Your task to perform on an android device: Open Chrome and go to settings Image 0: 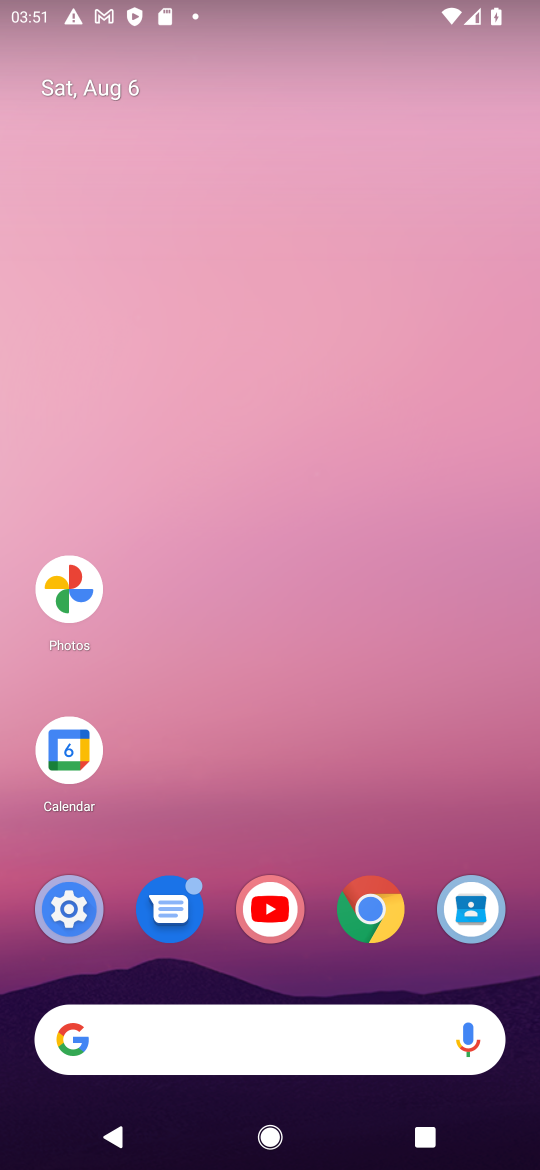
Step 0: click (366, 911)
Your task to perform on an android device: Open Chrome and go to settings Image 1: 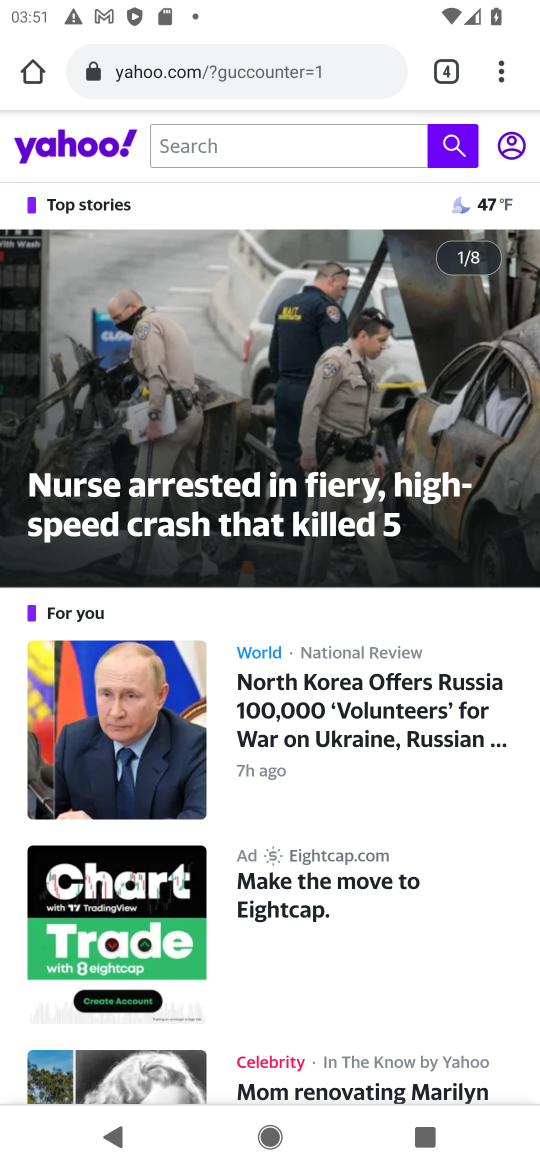
Step 1: click (504, 71)
Your task to perform on an android device: Open Chrome and go to settings Image 2: 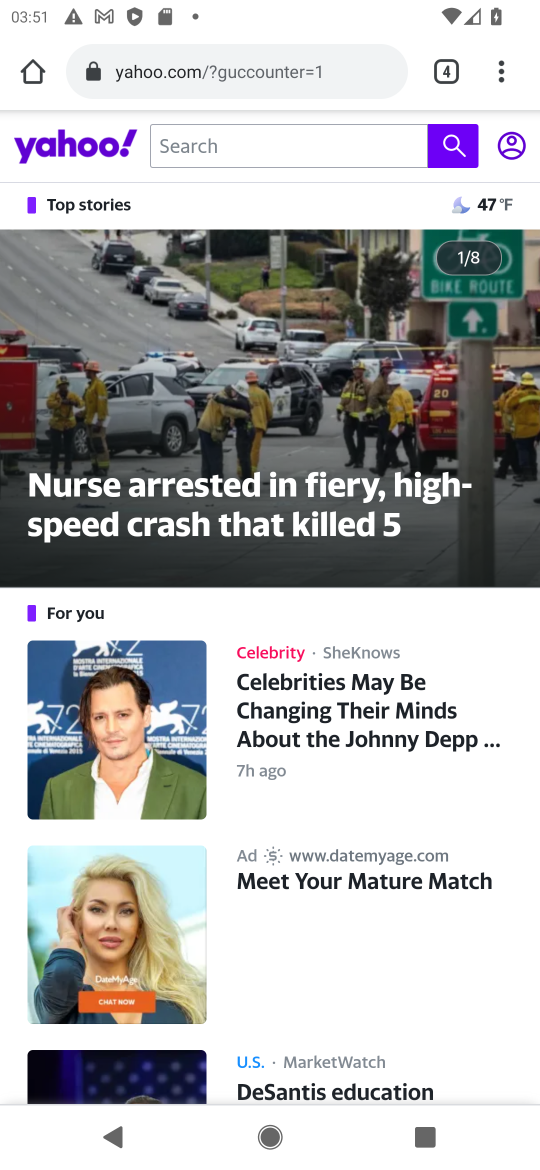
Step 2: click (502, 73)
Your task to perform on an android device: Open Chrome and go to settings Image 3: 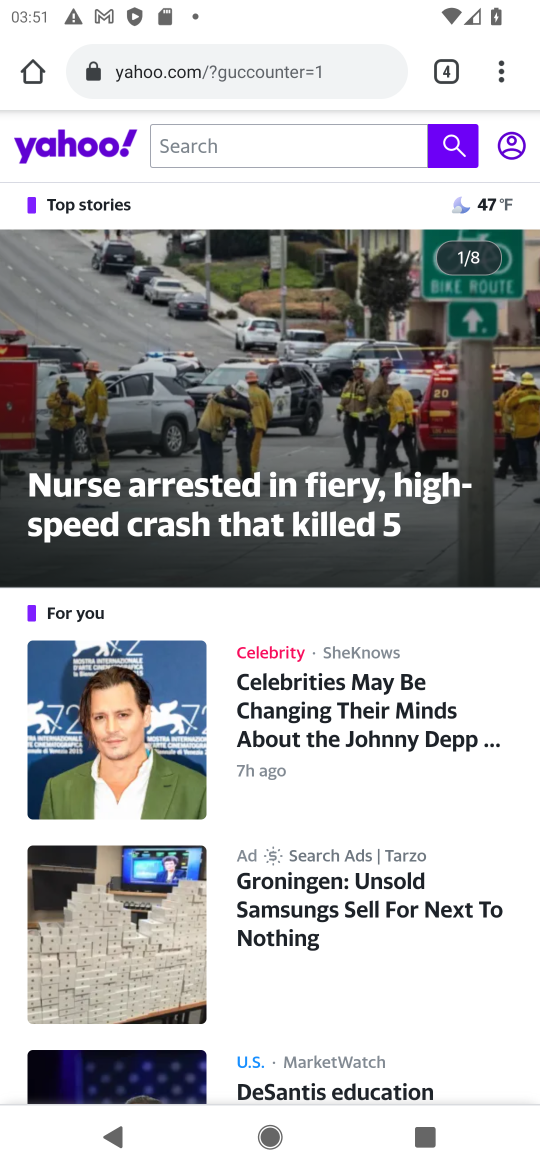
Step 3: click (507, 68)
Your task to perform on an android device: Open Chrome and go to settings Image 4: 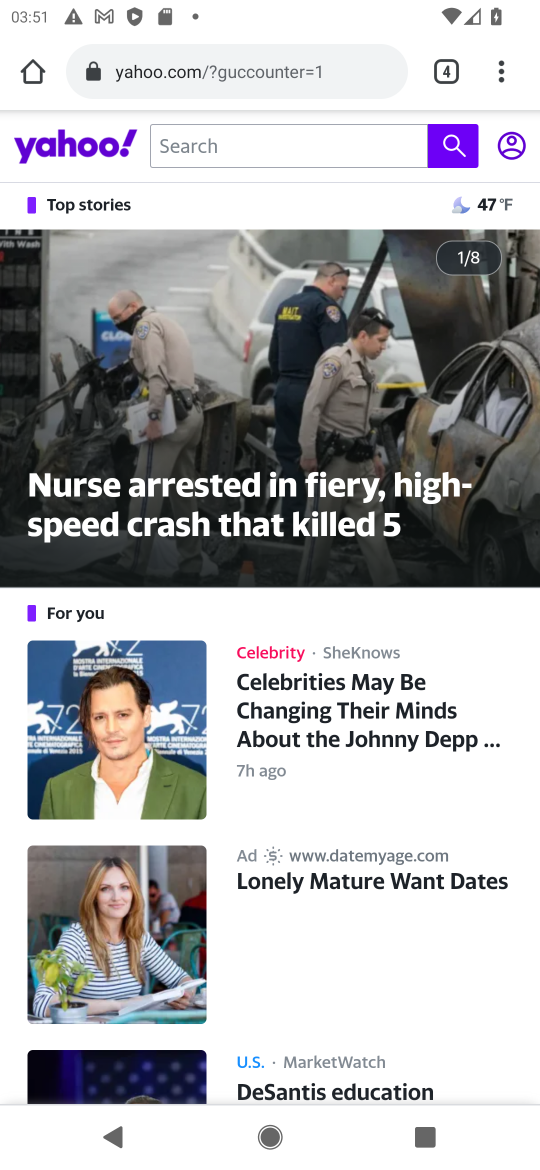
Step 4: click (497, 66)
Your task to perform on an android device: Open Chrome and go to settings Image 5: 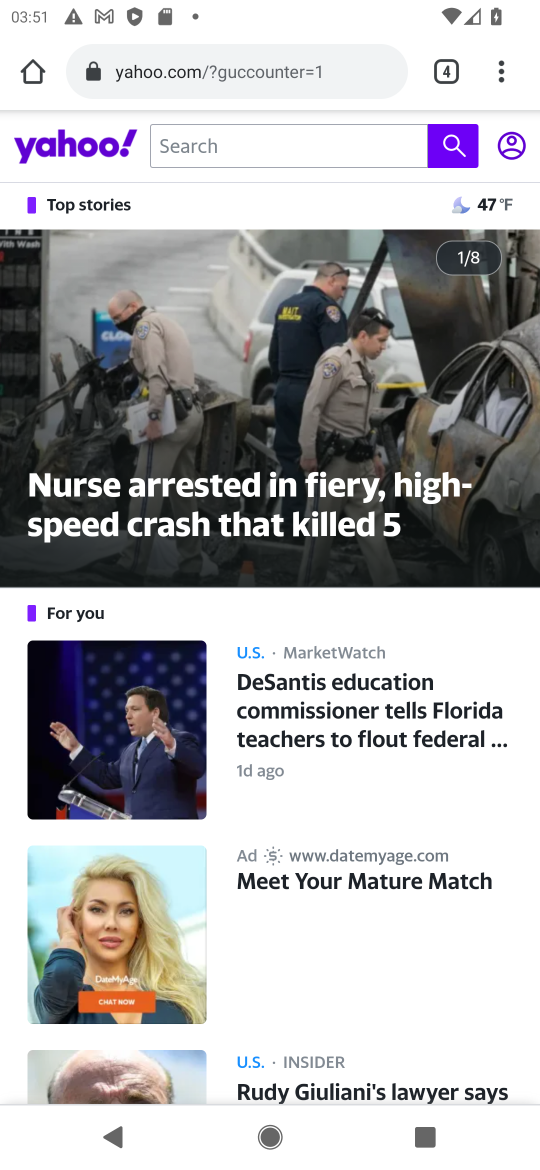
Step 5: click (499, 81)
Your task to perform on an android device: Open Chrome and go to settings Image 6: 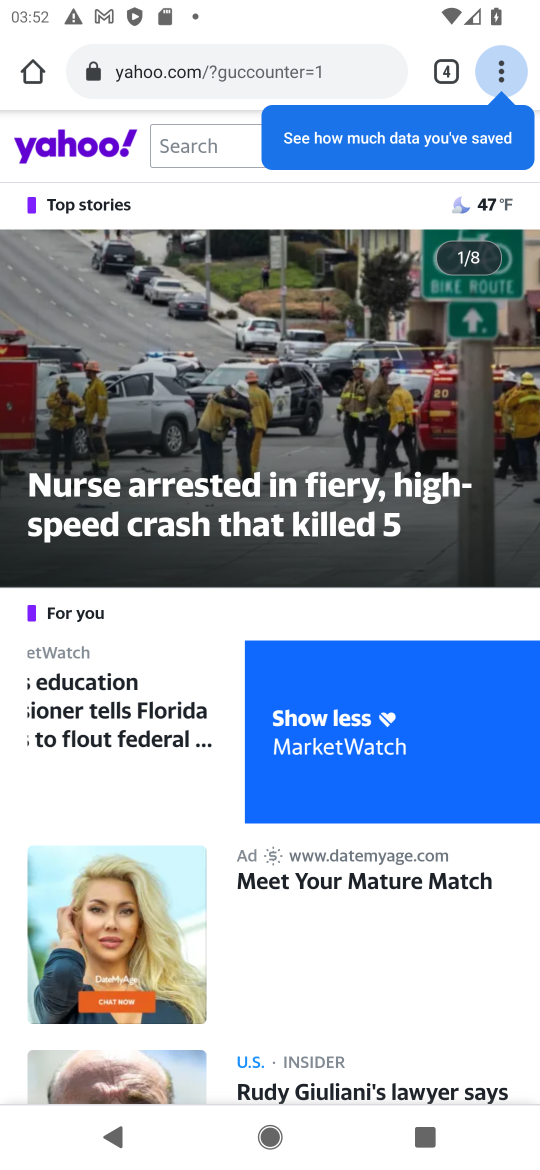
Step 6: click (521, 71)
Your task to perform on an android device: Open Chrome and go to settings Image 7: 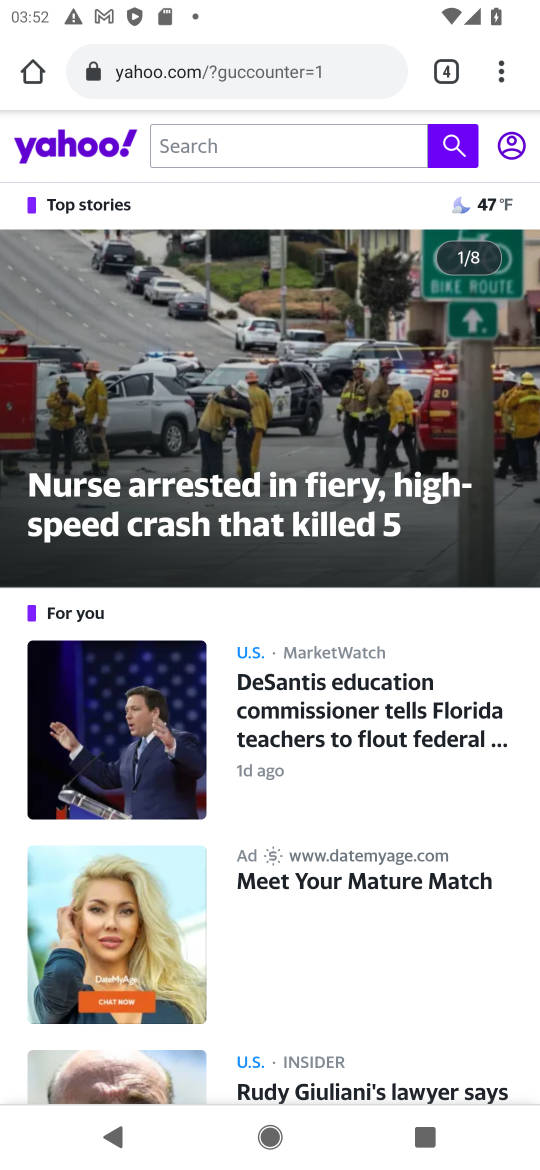
Step 7: click (500, 79)
Your task to perform on an android device: Open Chrome and go to settings Image 8: 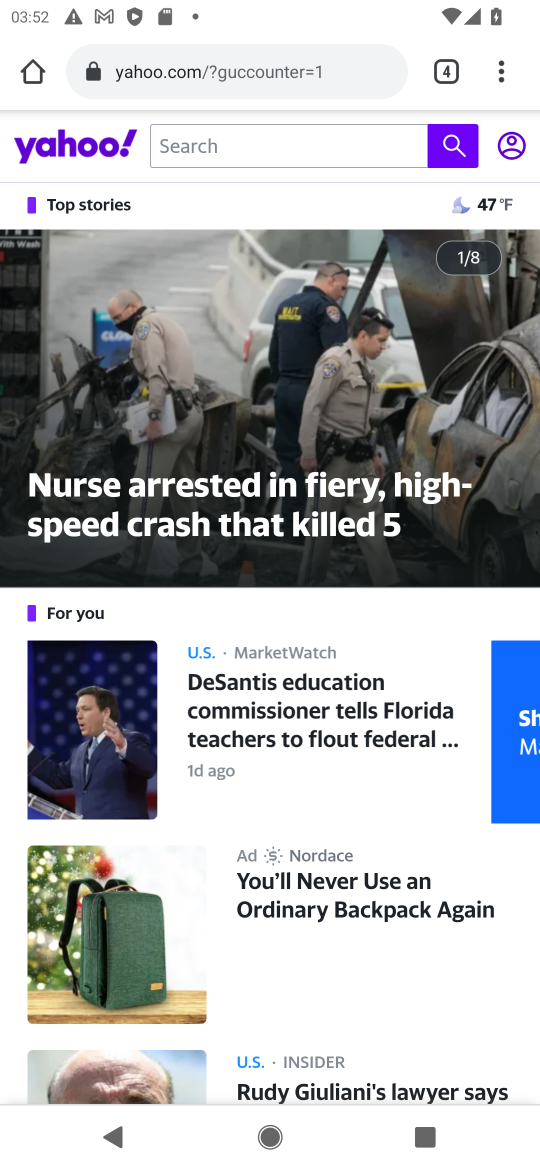
Step 8: click (497, 64)
Your task to perform on an android device: Open Chrome and go to settings Image 9: 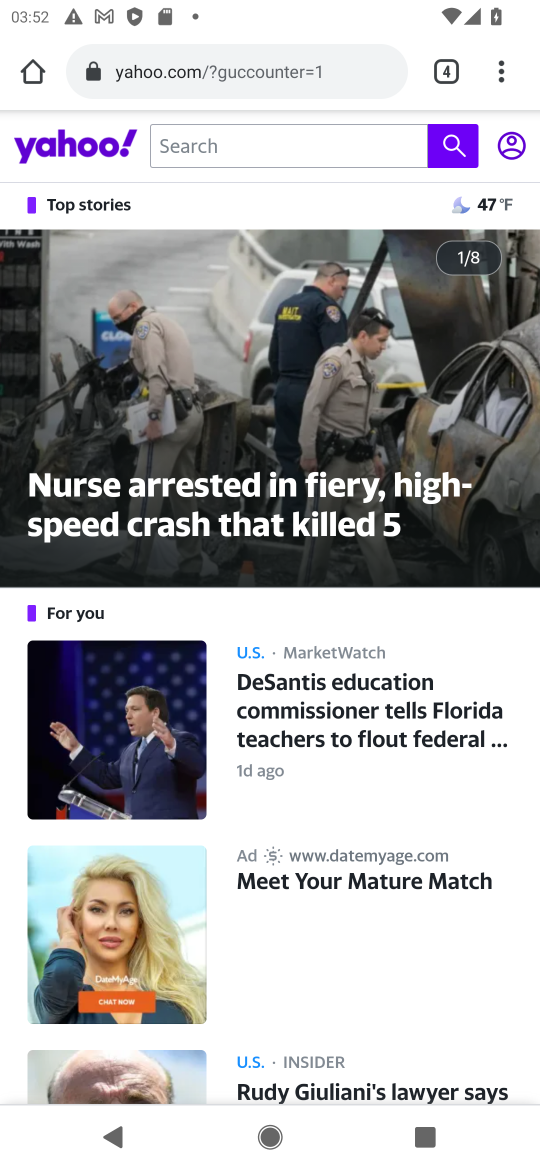
Step 9: click (511, 51)
Your task to perform on an android device: Open Chrome and go to settings Image 10: 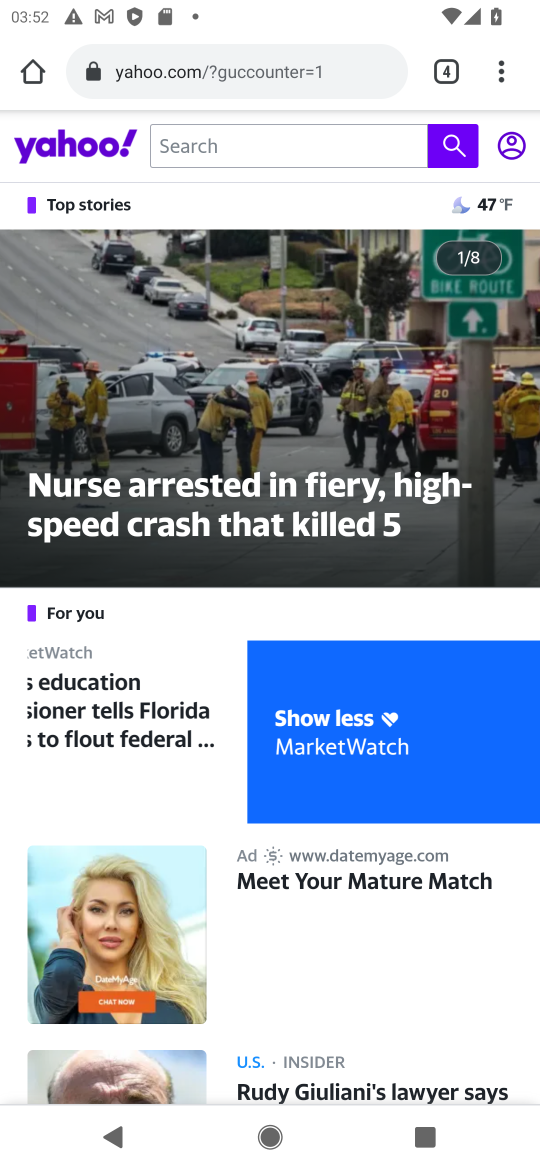
Step 10: click (514, 76)
Your task to perform on an android device: Open Chrome and go to settings Image 11: 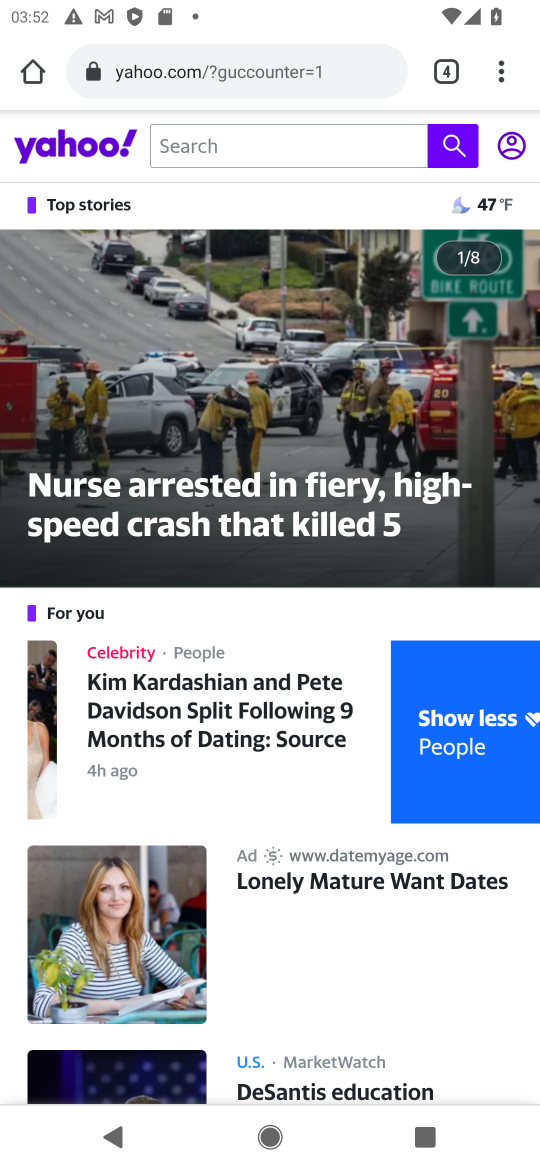
Step 11: click (496, 68)
Your task to perform on an android device: Open Chrome and go to settings Image 12: 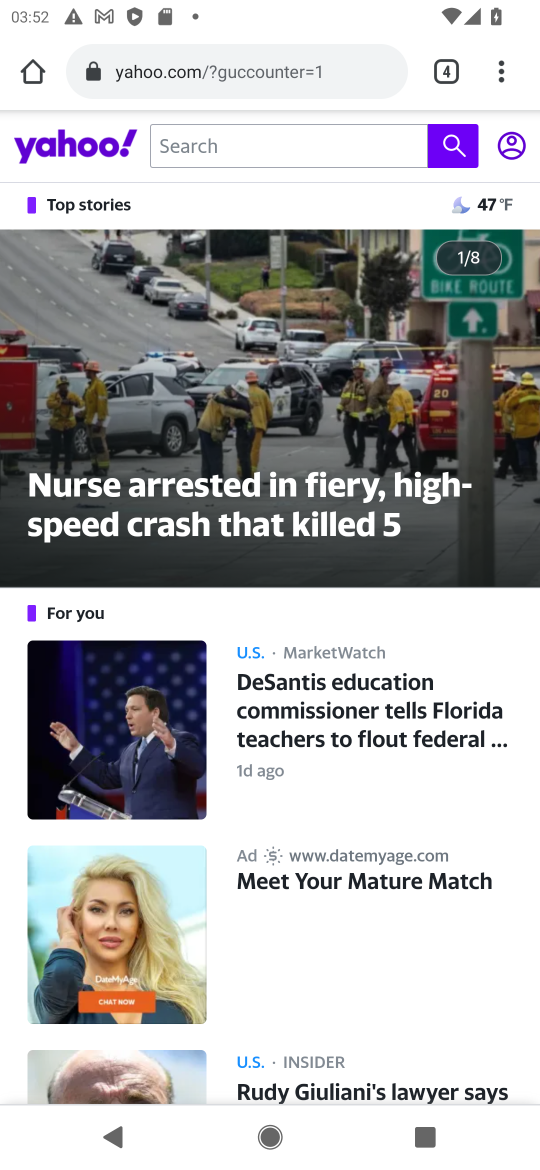
Step 12: click (502, 82)
Your task to perform on an android device: Open Chrome and go to settings Image 13: 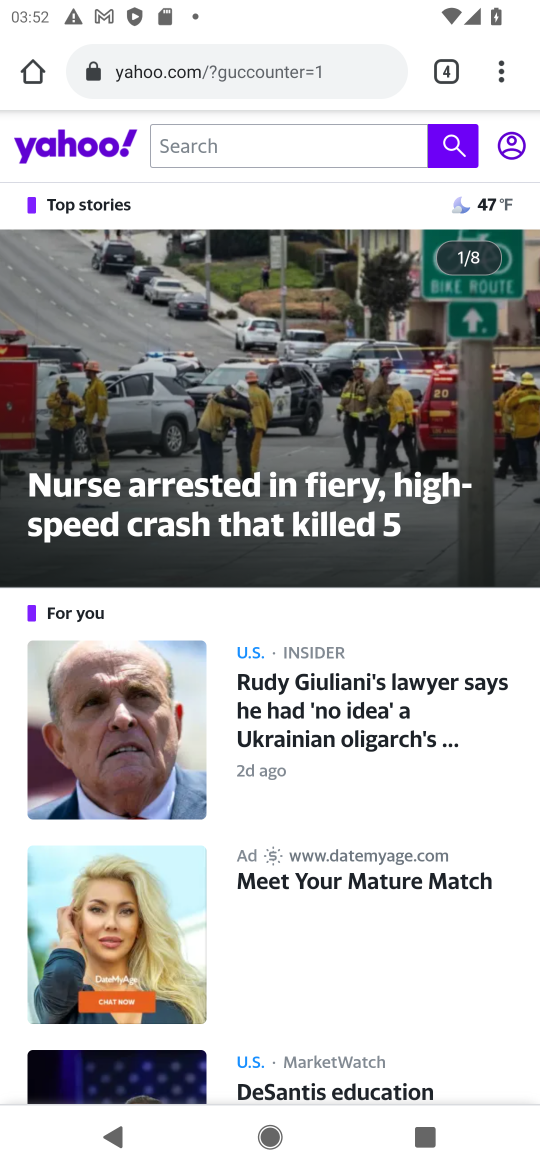
Step 13: click (502, 74)
Your task to perform on an android device: Open Chrome and go to settings Image 14: 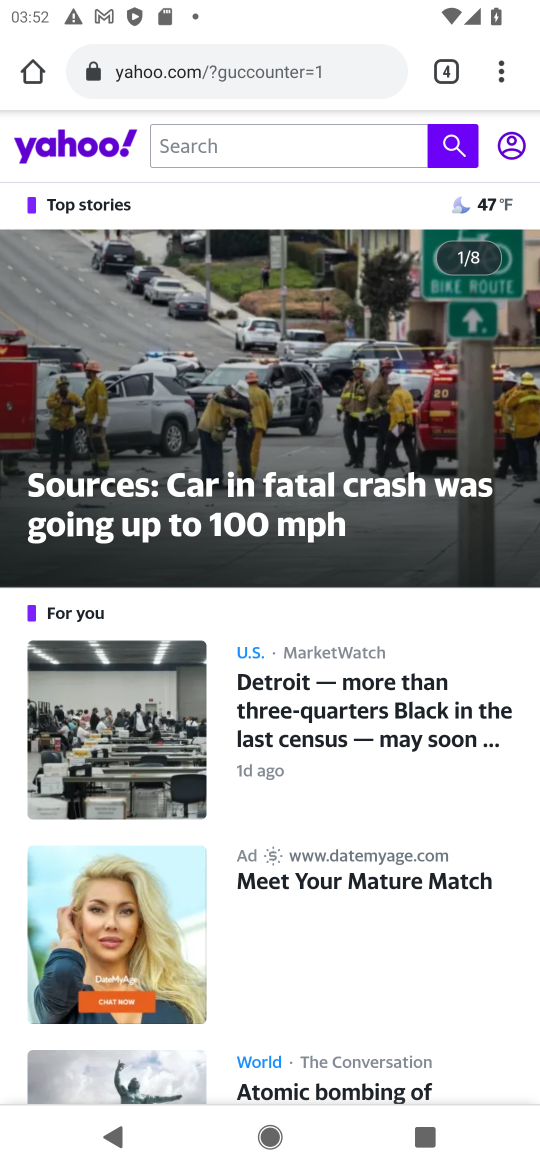
Step 14: click (503, 63)
Your task to perform on an android device: Open Chrome and go to settings Image 15: 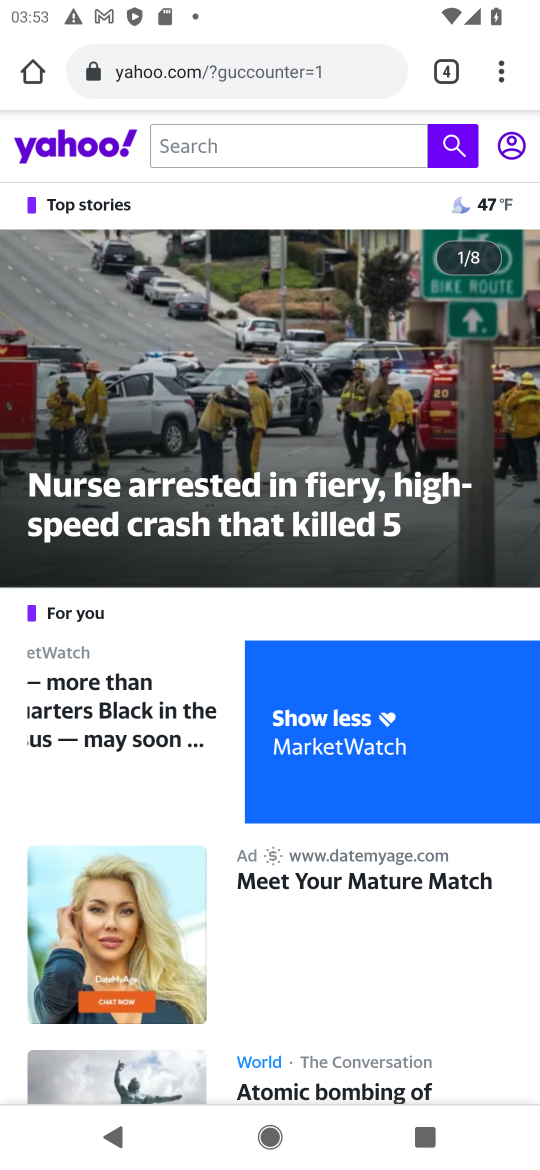
Step 15: click (503, 70)
Your task to perform on an android device: Open Chrome and go to settings Image 16: 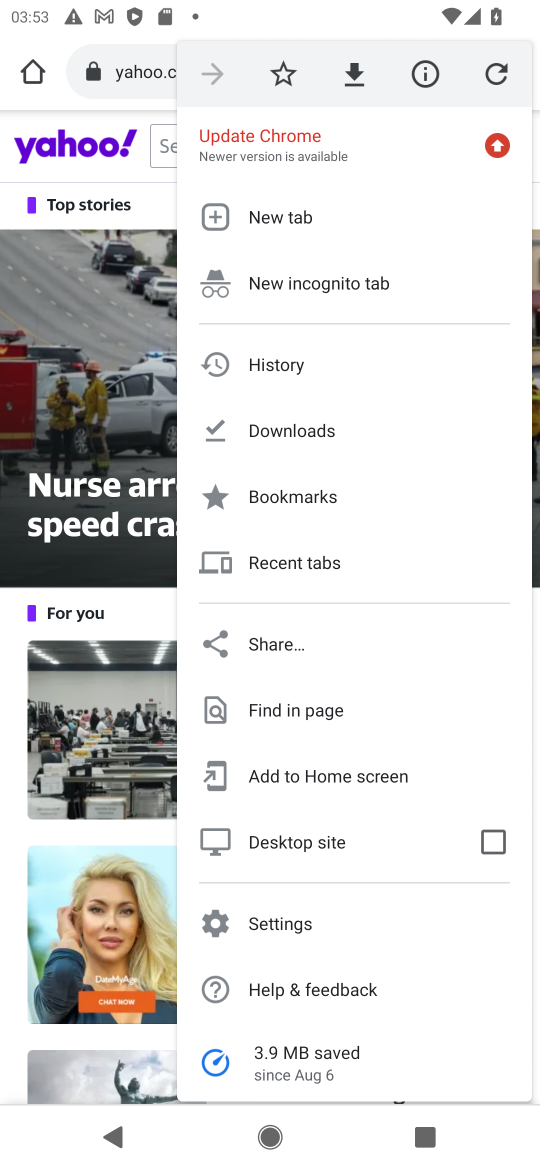
Step 16: click (284, 916)
Your task to perform on an android device: Open Chrome and go to settings Image 17: 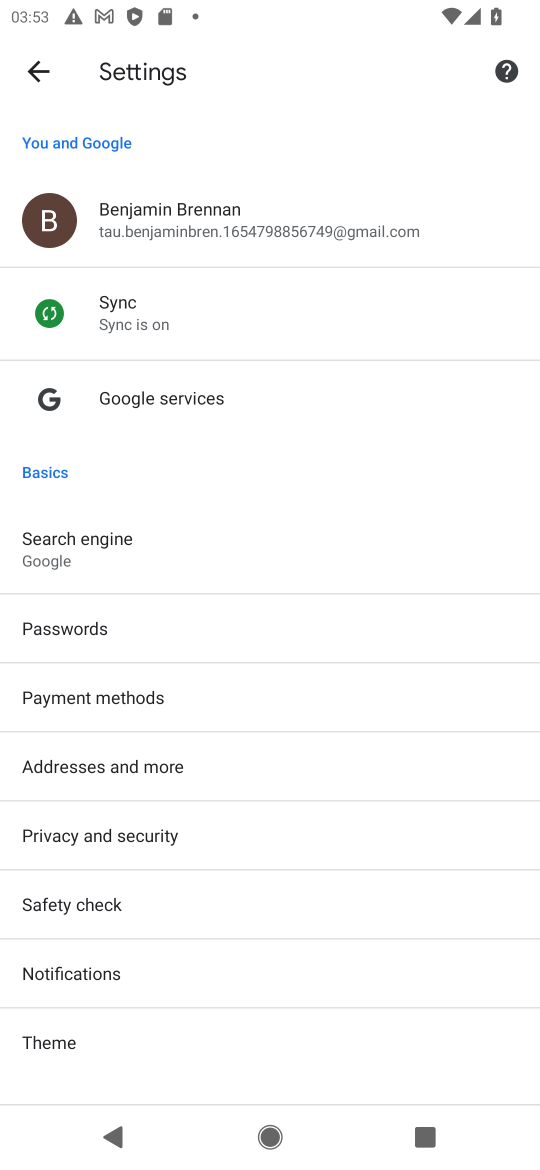
Step 17: task complete